Your task to perform on an android device: change the clock style Image 0: 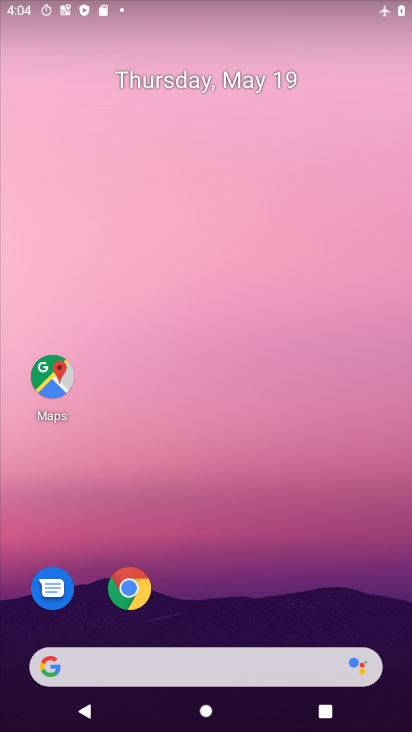
Step 0: drag from (193, 597) to (229, 127)
Your task to perform on an android device: change the clock style Image 1: 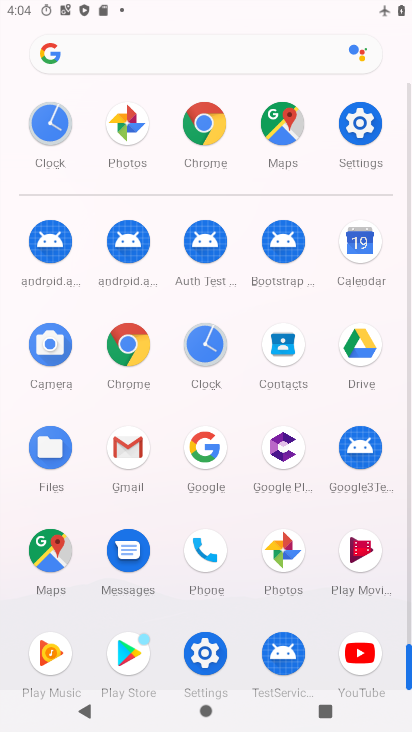
Step 1: click (213, 361)
Your task to perform on an android device: change the clock style Image 2: 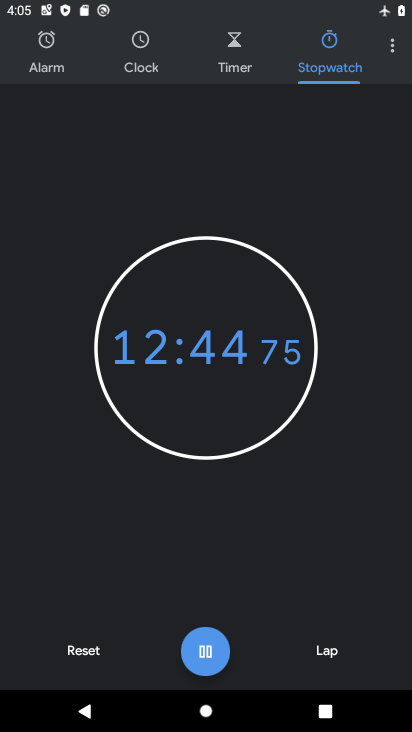
Step 2: press home button
Your task to perform on an android device: change the clock style Image 3: 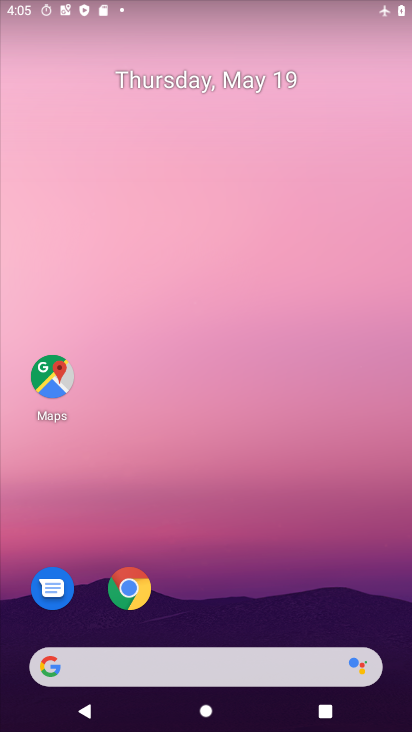
Step 3: drag from (224, 587) to (251, 1)
Your task to perform on an android device: change the clock style Image 4: 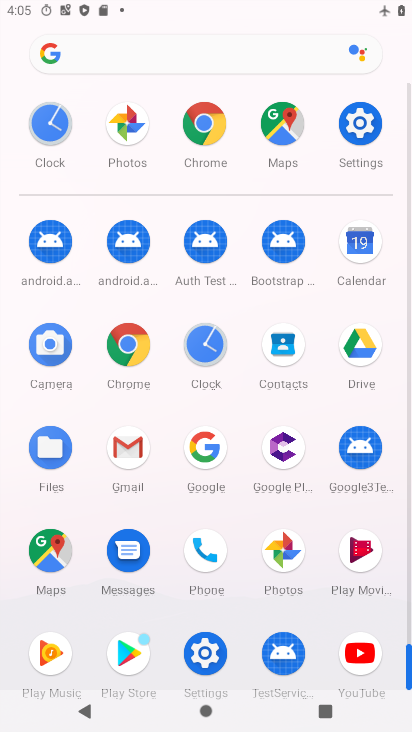
Step 4: click (218, 345)
Your task to perform on an android device: change the clock style Image 5: 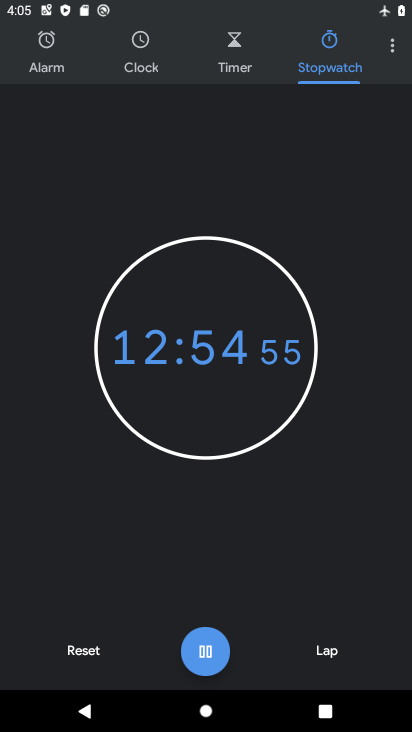
Step 5: click (397, 45)
Your task to perform on an android device: change the clock style Image 6: 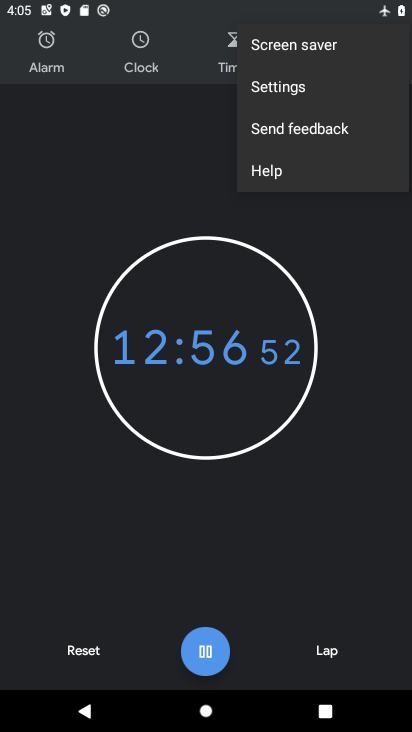
Step 6: click (279, 95)
Your task to perform on an android device: change the clock style Image 7: 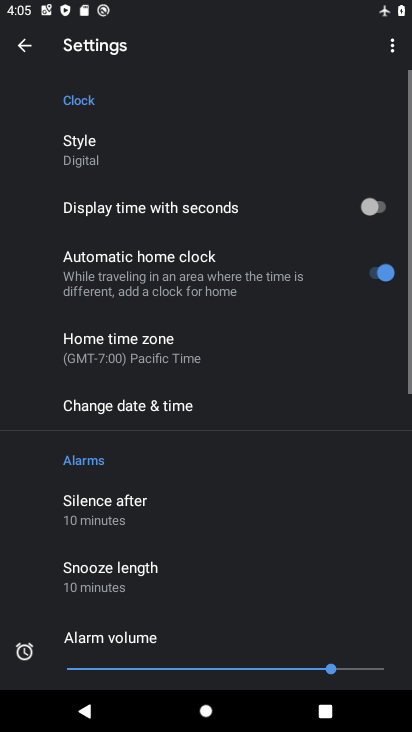
Step 7: click (84, 154)
Your task to perform on an android device: change the clock style Image 8: 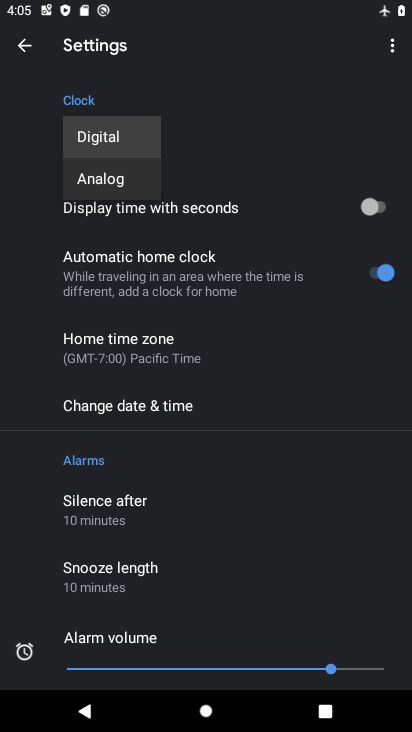
Step 8: click (117, 180)
Your task to perform on an android device: change the clock style Image 9: 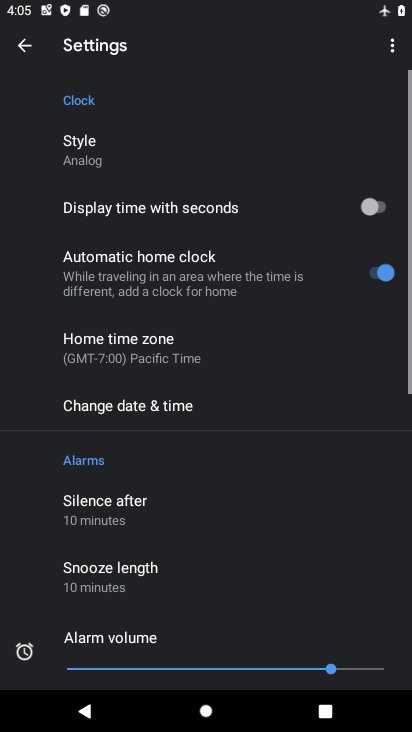
Step 9: task complete